Your task to perform on an android device: Find coffee shops on Maps Image 0: 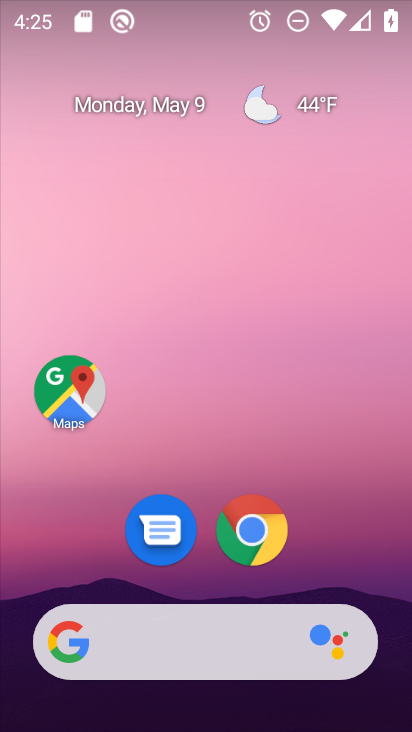
Step 0: drag from (202, 583) to (206, 189)
Your task to perform on an android device: Find coffee shops on Maps Image 1: 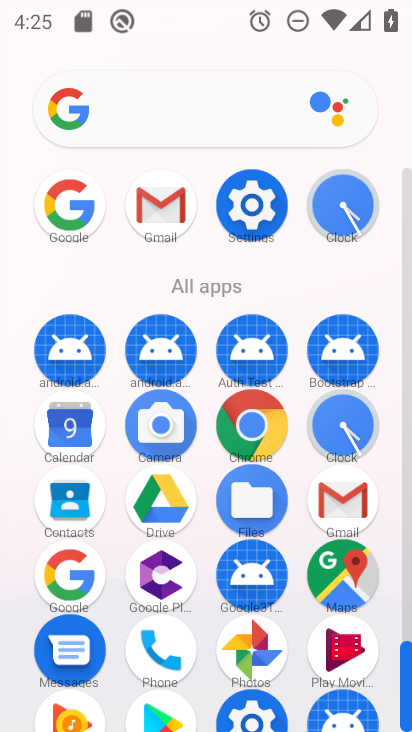
Step 1: click (338, 566)
Your task to perform on an android device: Find coffee shops on Maps Image 2: 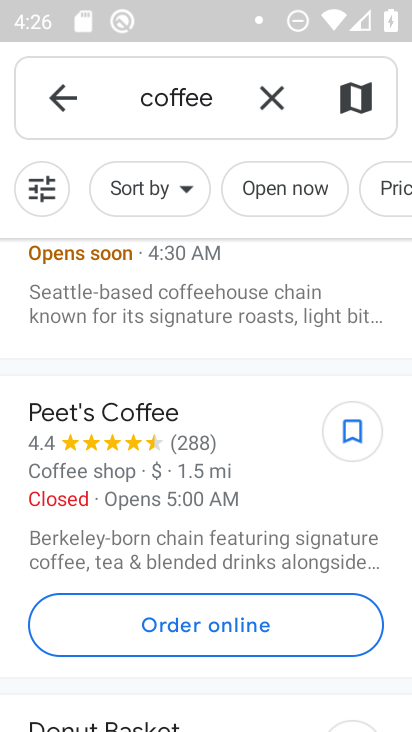
Step 2: task complete